Your task to perform on an android device: add a label to a message in the gmail app Image 0: 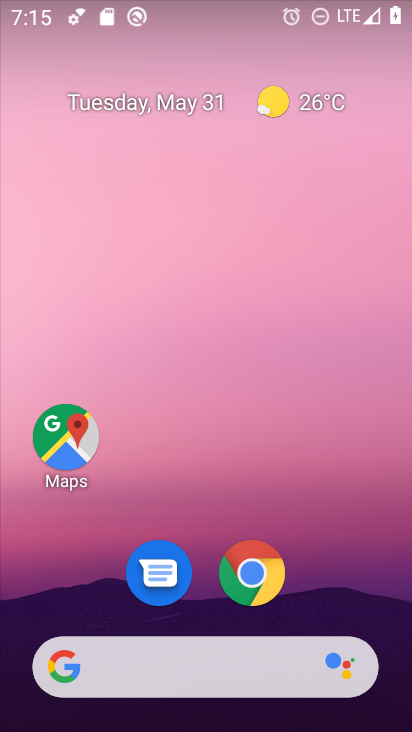
Step 0: drag from (394, 658) to (308, 49)
Your task to perform on an android device: add a label to a message in the gmail app Image 1: 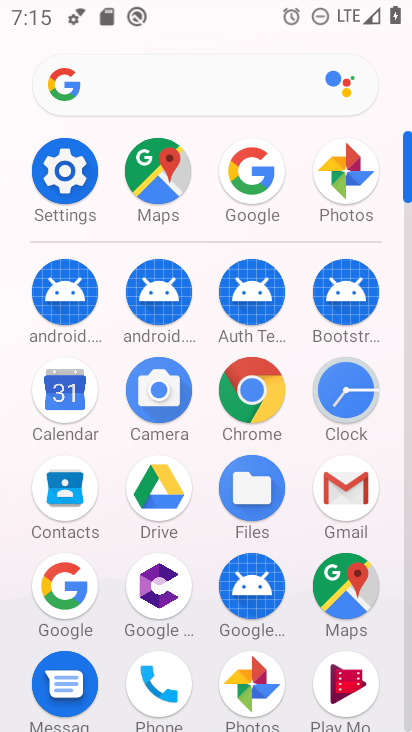
Step 1: click (362, 513)
Your task to perform on an android device: add a label to a message in the gmail app Image 2: 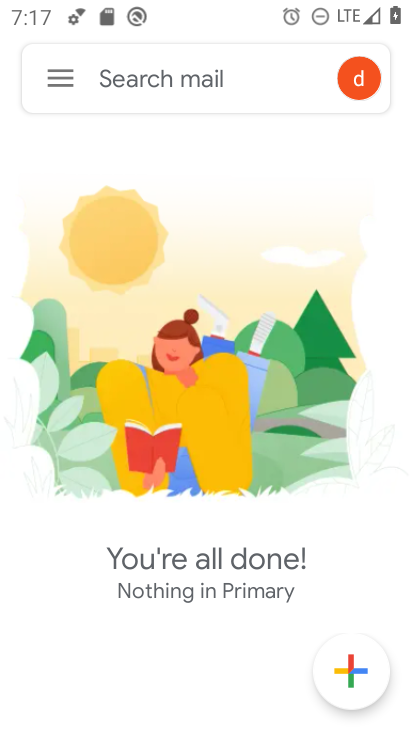
Step 2: task complete